Your task to perform on an android device: open app "Facebook" (install if not already installed) and go to login screen Image 0: 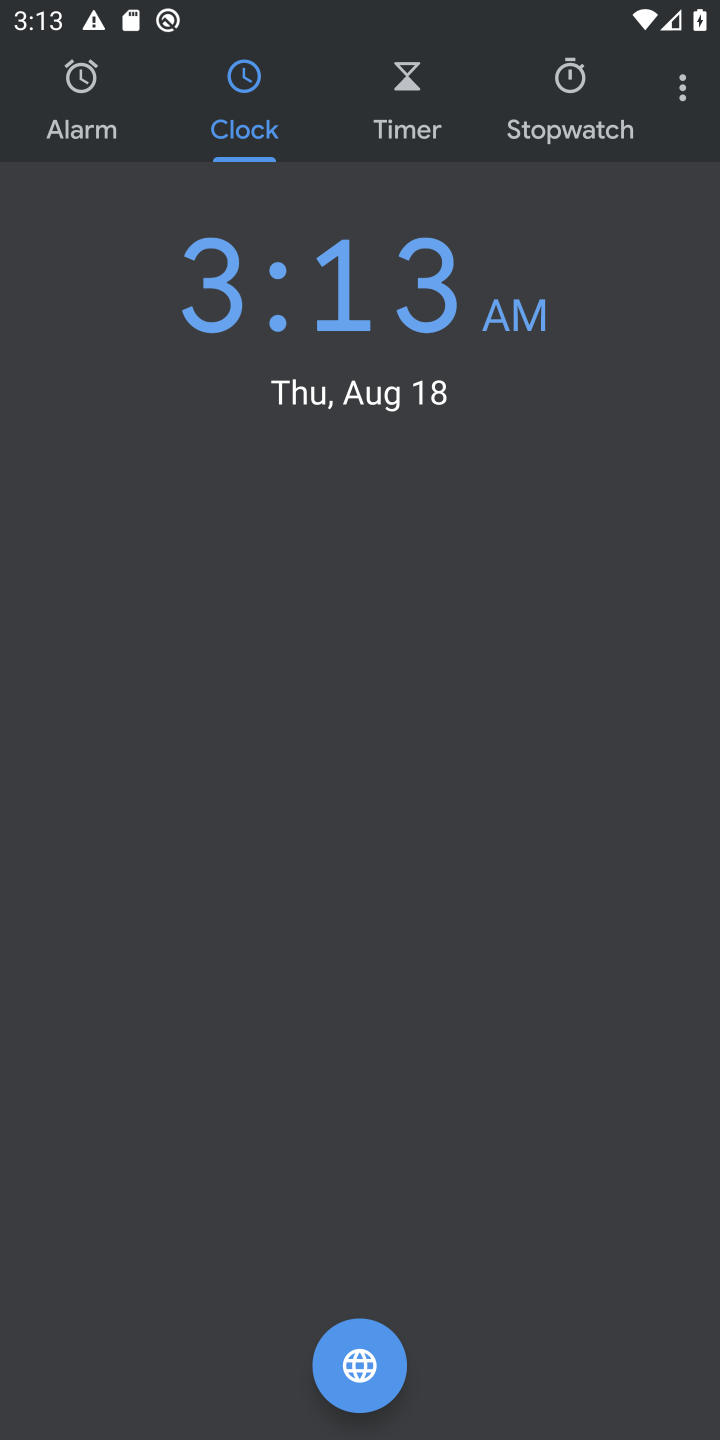
Step 0: press home button
Your task to perform on an android device: open app "Facebook" (install if not already installed) and go to login screen Image 1: 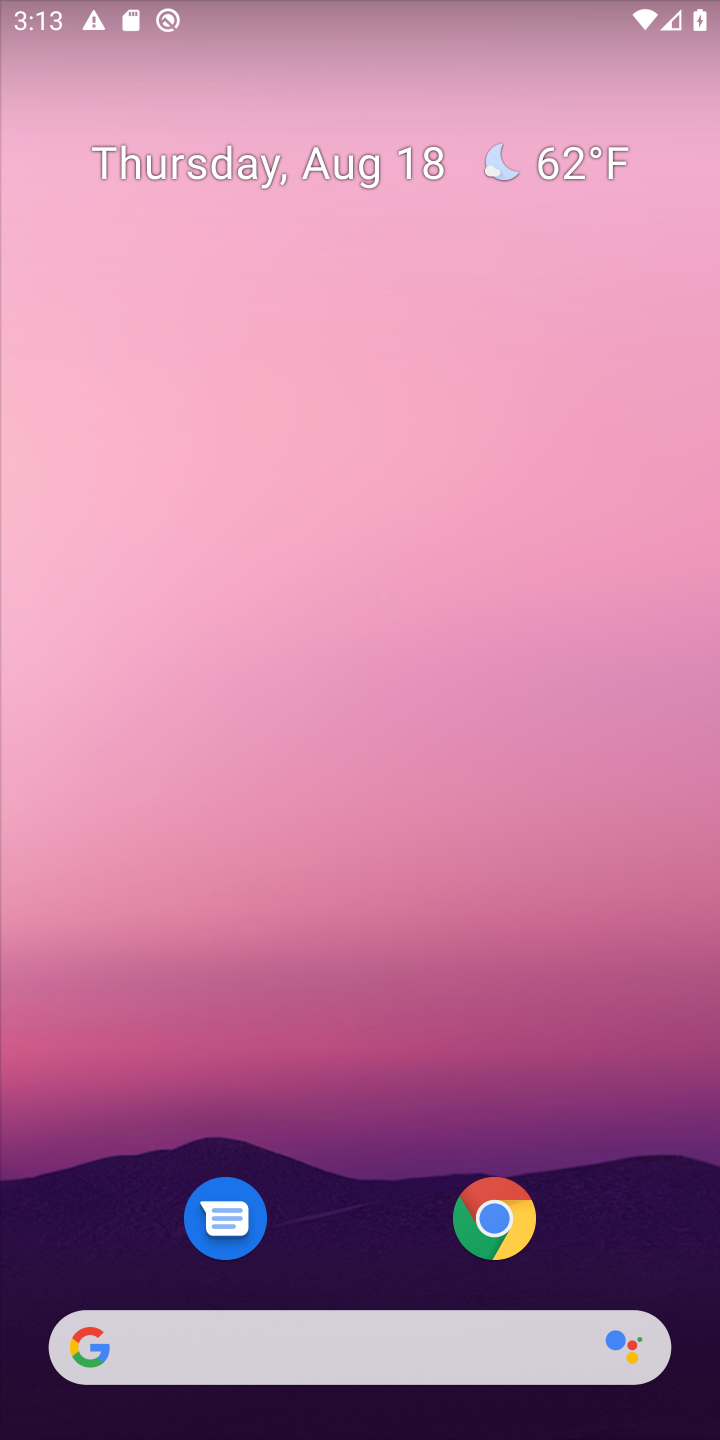
Step 1: drag from (410, 1125) to (476, 445)
Your task to perform on an android device: open app "Facebook" (install if not already installed) and go to login screen Image 2: 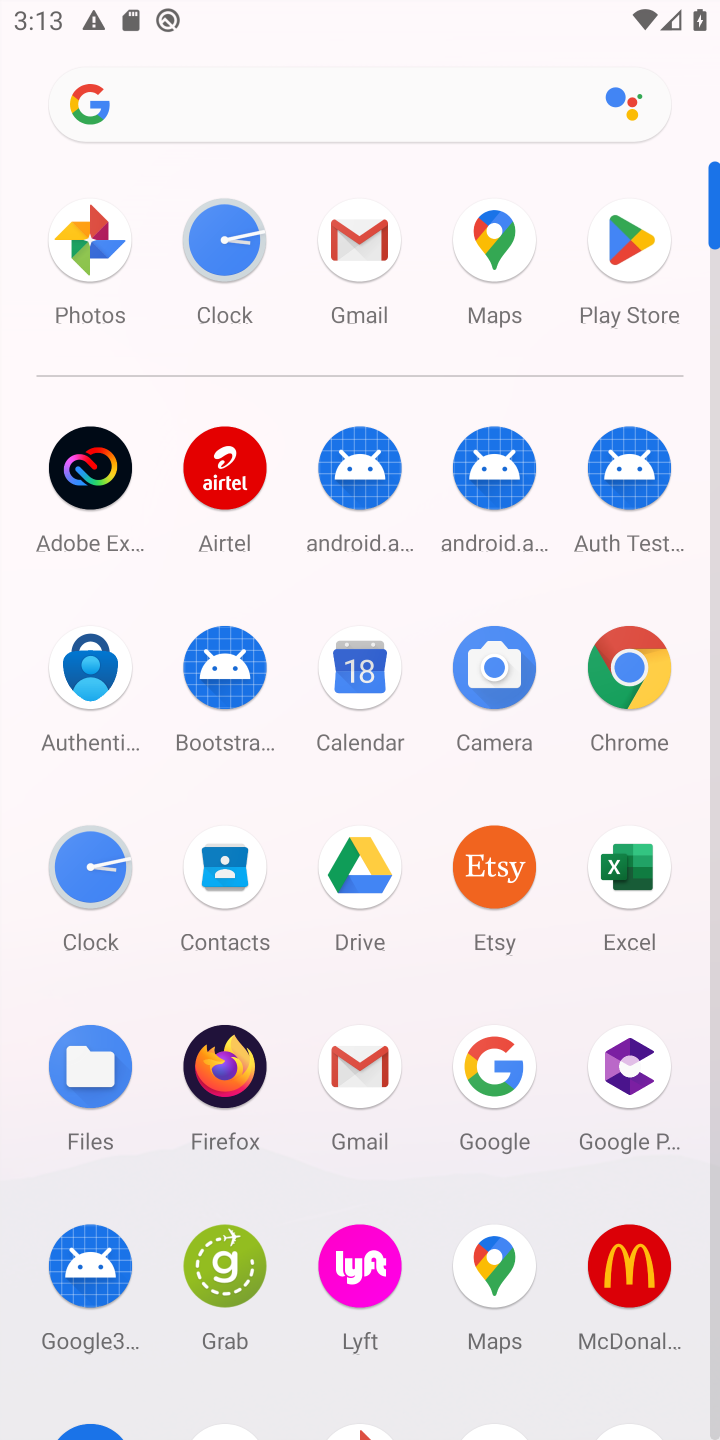
Step 2: drag from (309, 986) to (410, 390)
Your task to perform on an android device: open app "Facebook" (install if not already installed) and go to login screen Image 3: 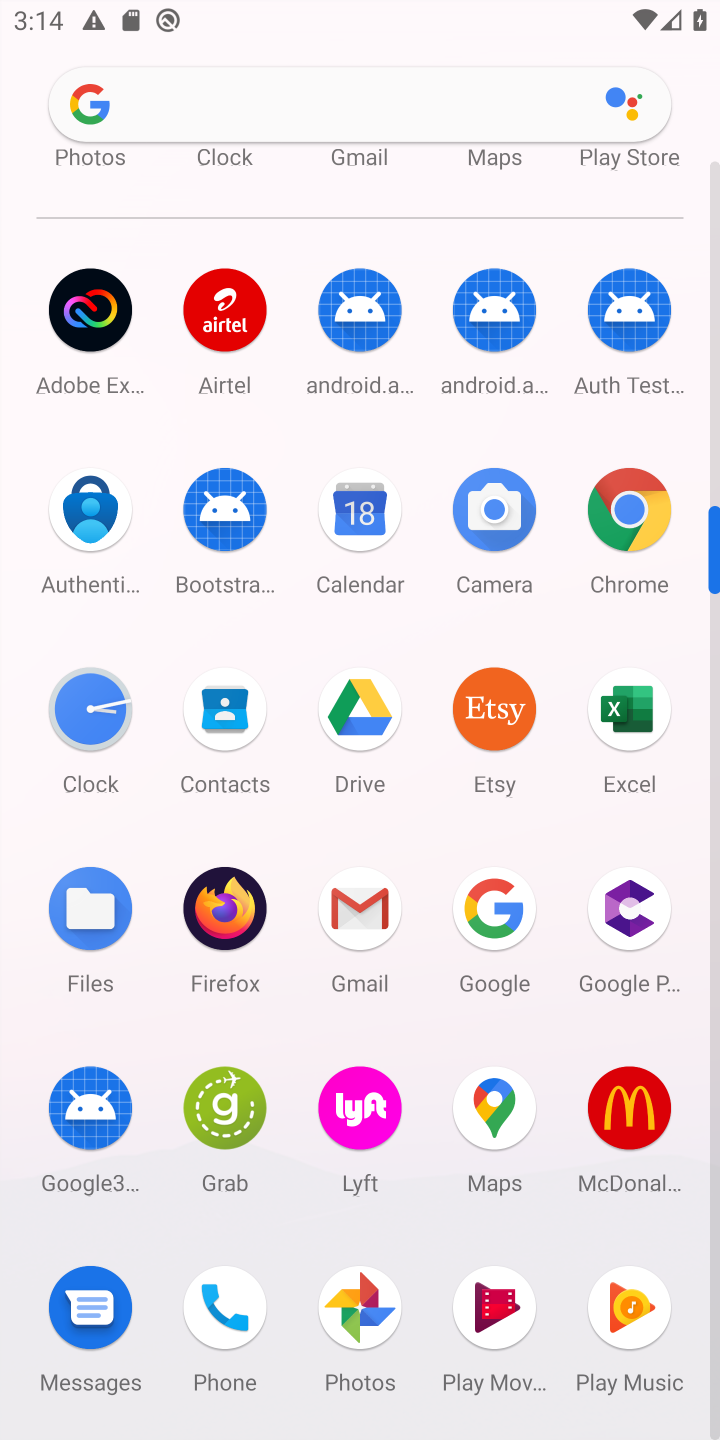
Step 3: drag from (308, 985) to (385, 366)
Your task to perform on an android device: open app "Facebook" (install if not already installed) and go to login screen Image 4: 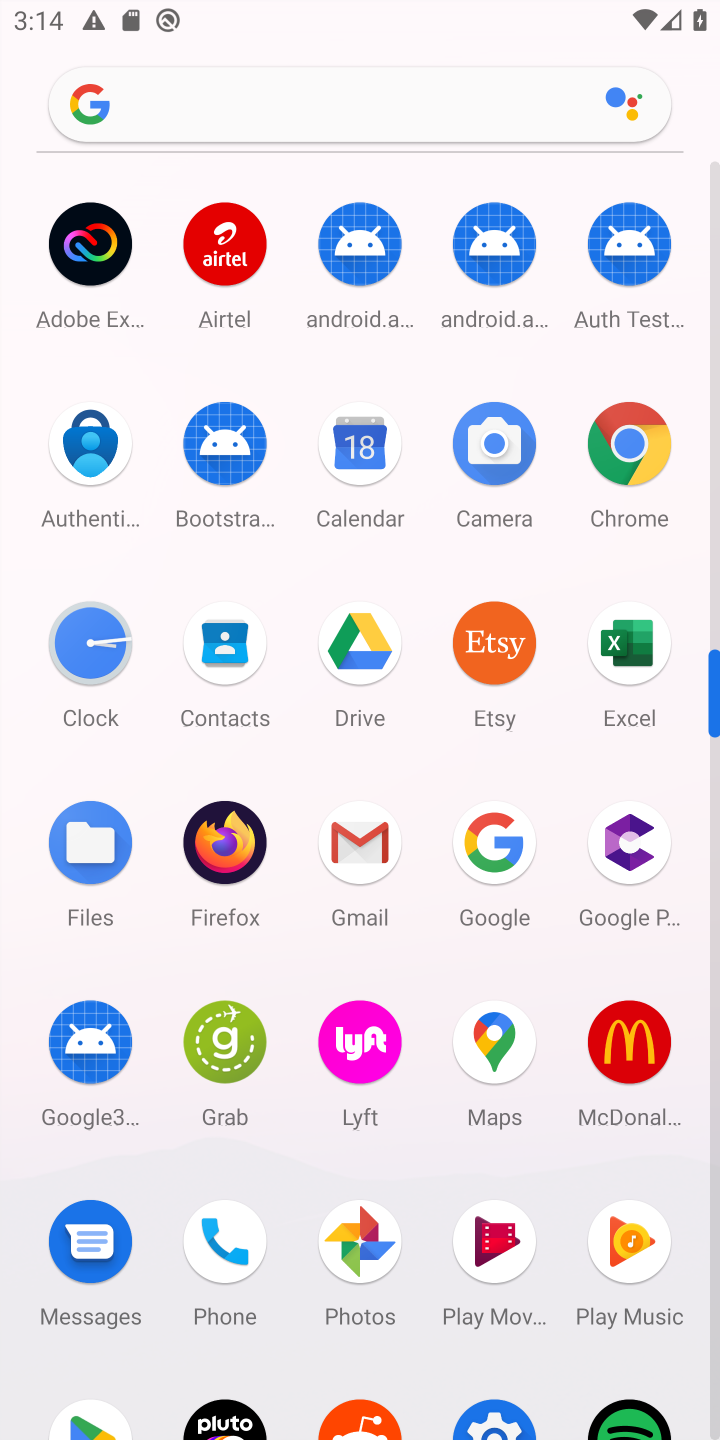
Step 4: drag from (308, 1119) to (306, 460)
Your task to perform on an android device: open app "Facebook" (install if not already installed) and go to login screen Image 5: 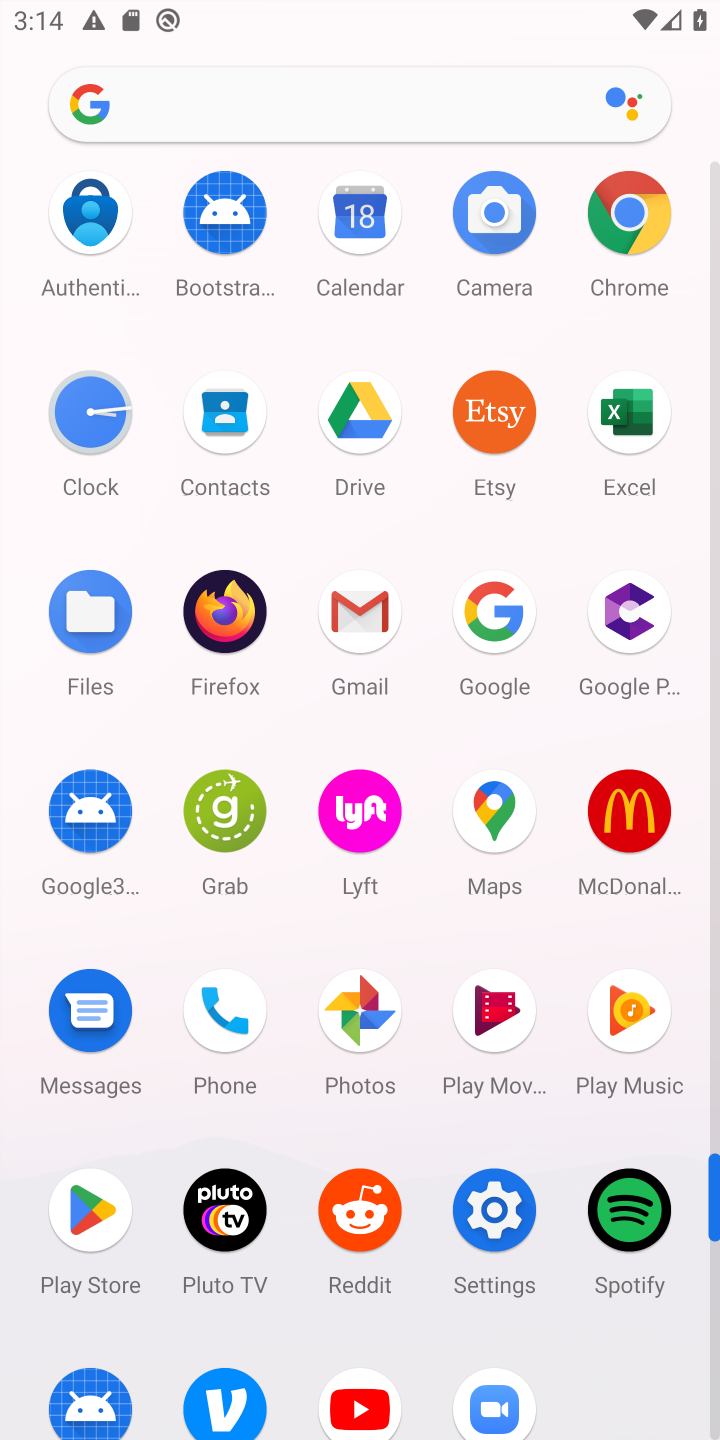
Step 5: drag from (331, 1058) to (356, 422)
Your task to perform on an android device: open app "Facebook" (install if not already installed) and go to login screen Image 6: 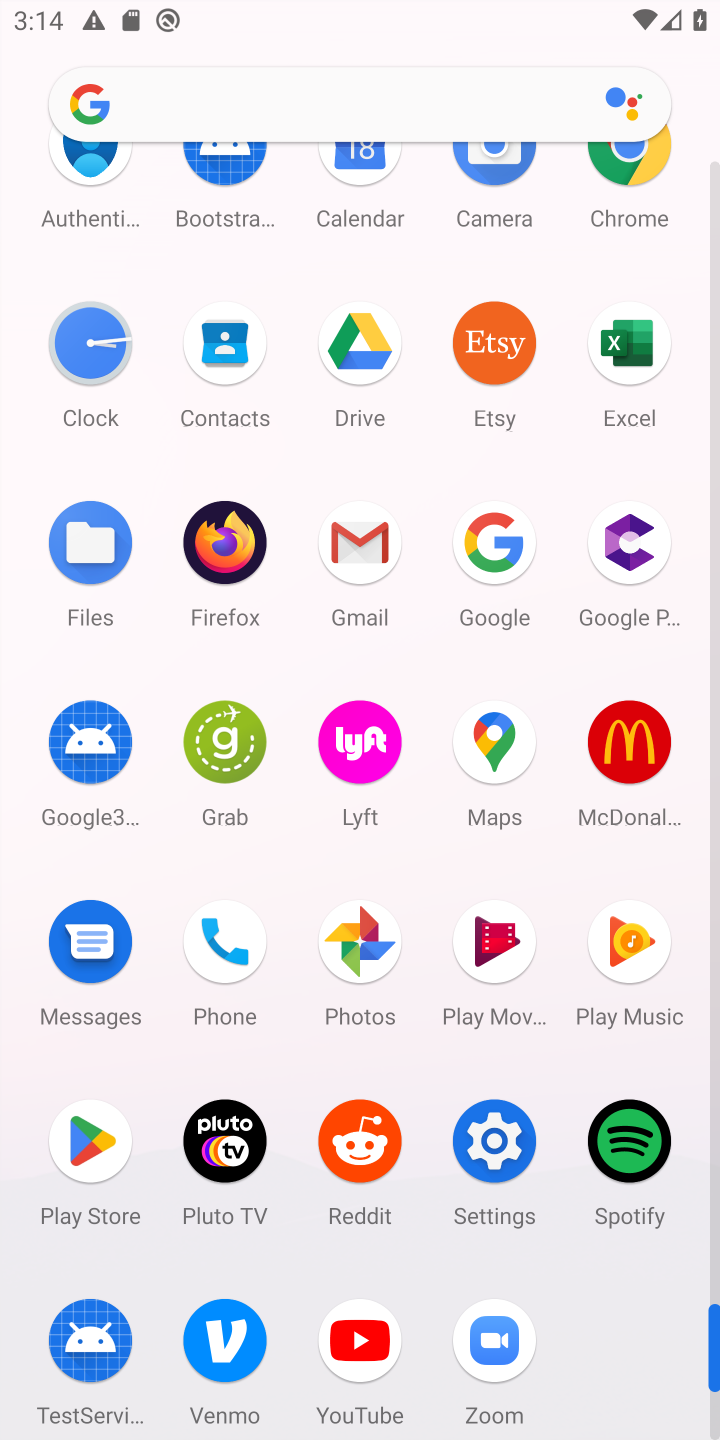
Step 6: click (117, 1157)
Your task to perform on an android device: open app "Facebook" (install if not already installed) and go to login screen Image 7: 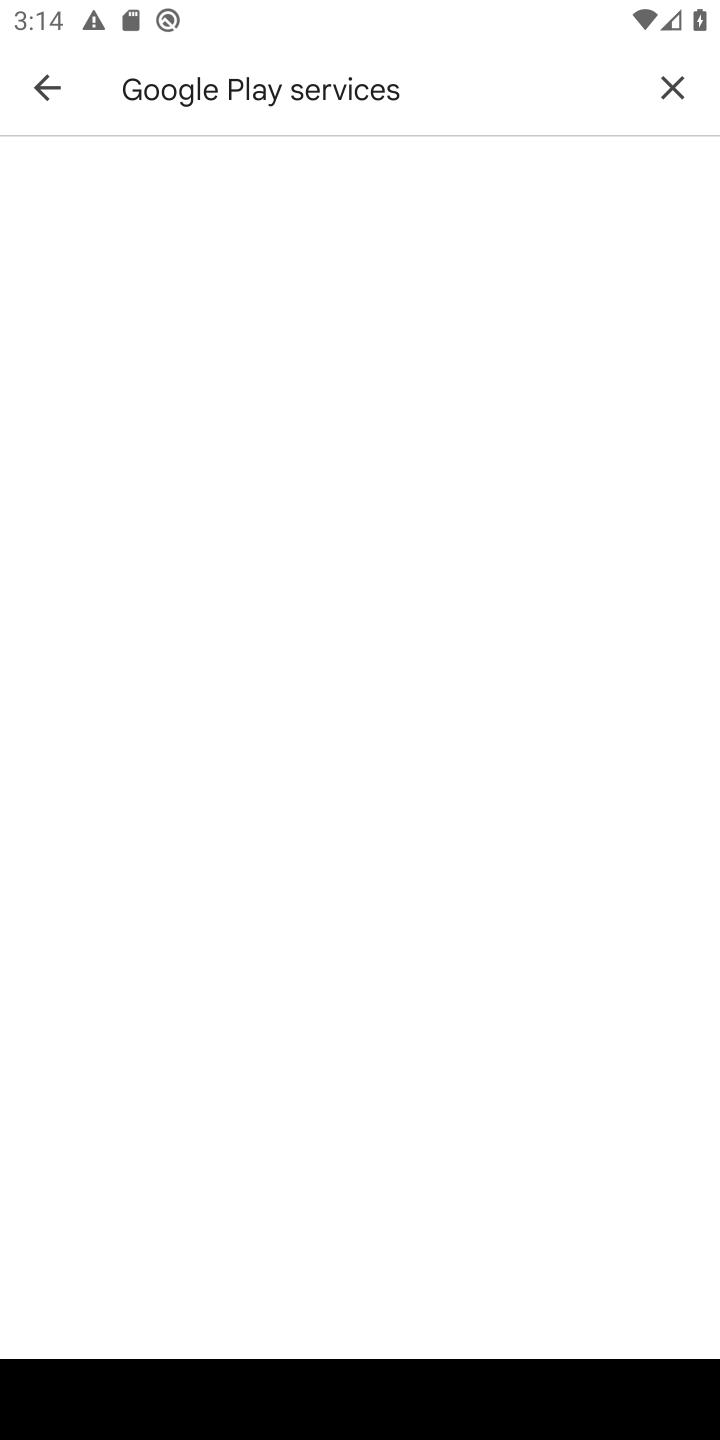
Step 7: click (661, 87)
Your task to perform on an android device: open app "Facebook" (install if not already installed) and go to login screen Image 8: 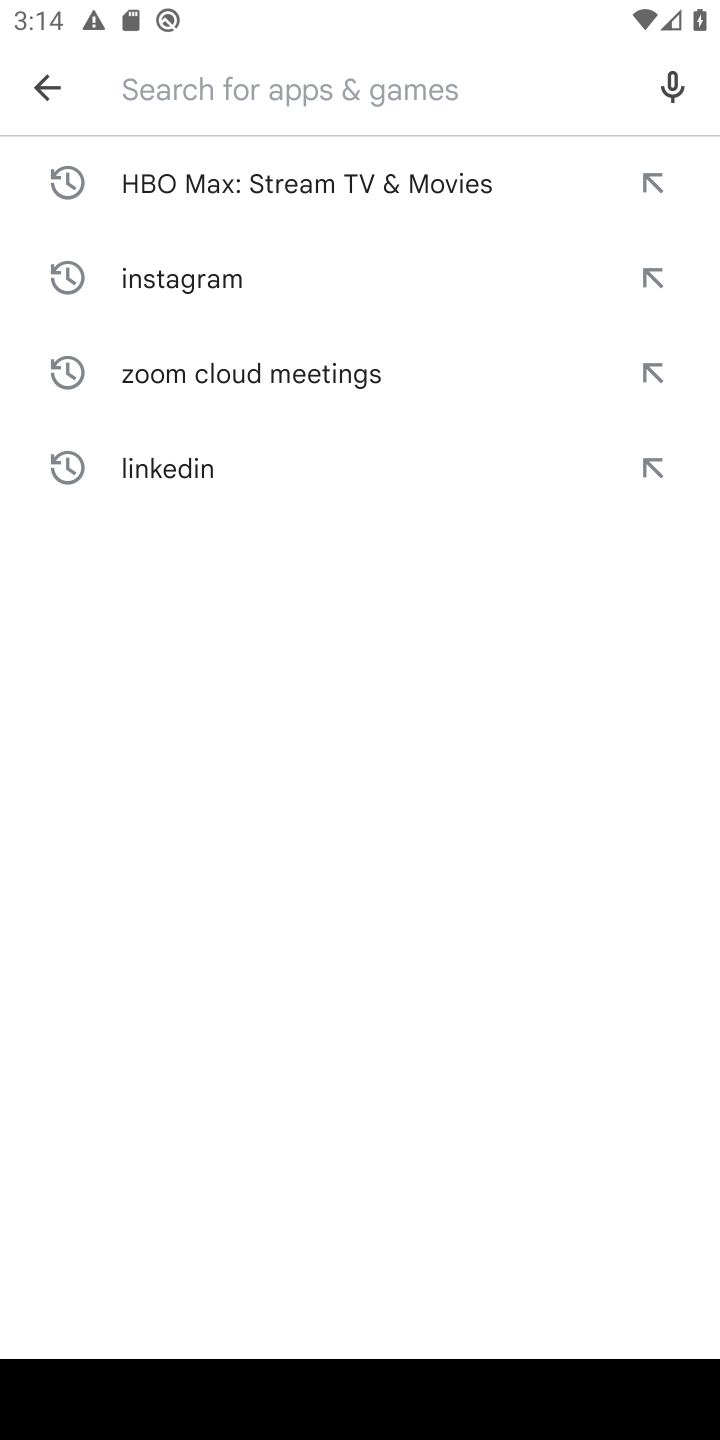
Step 8: type "Facebook"
Your task to perform on an android device: open app "Facebook" (install if not already installed) and go to login screen Image 9: 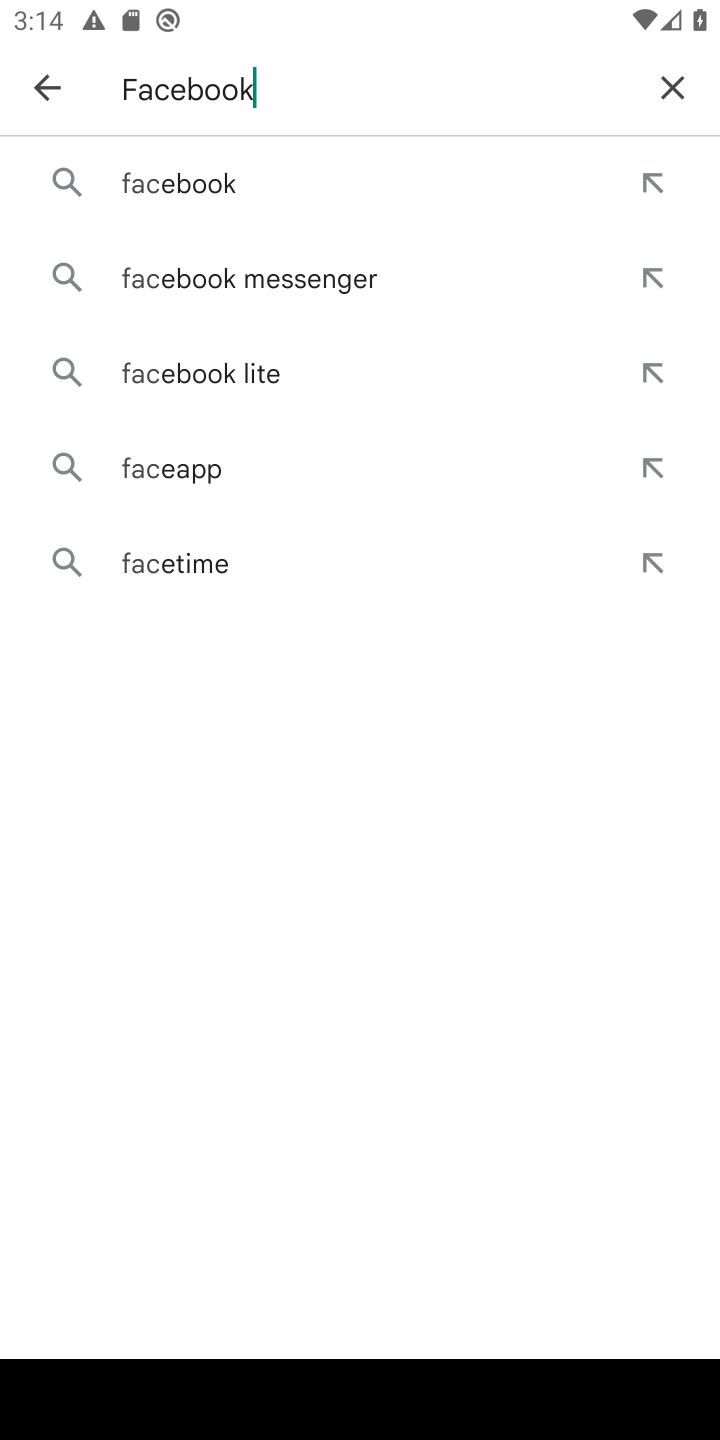
Step 9: type ""
Your task to perform on an android device: open app "Facebook" (install if not already installed) and go to login screen Image 10: 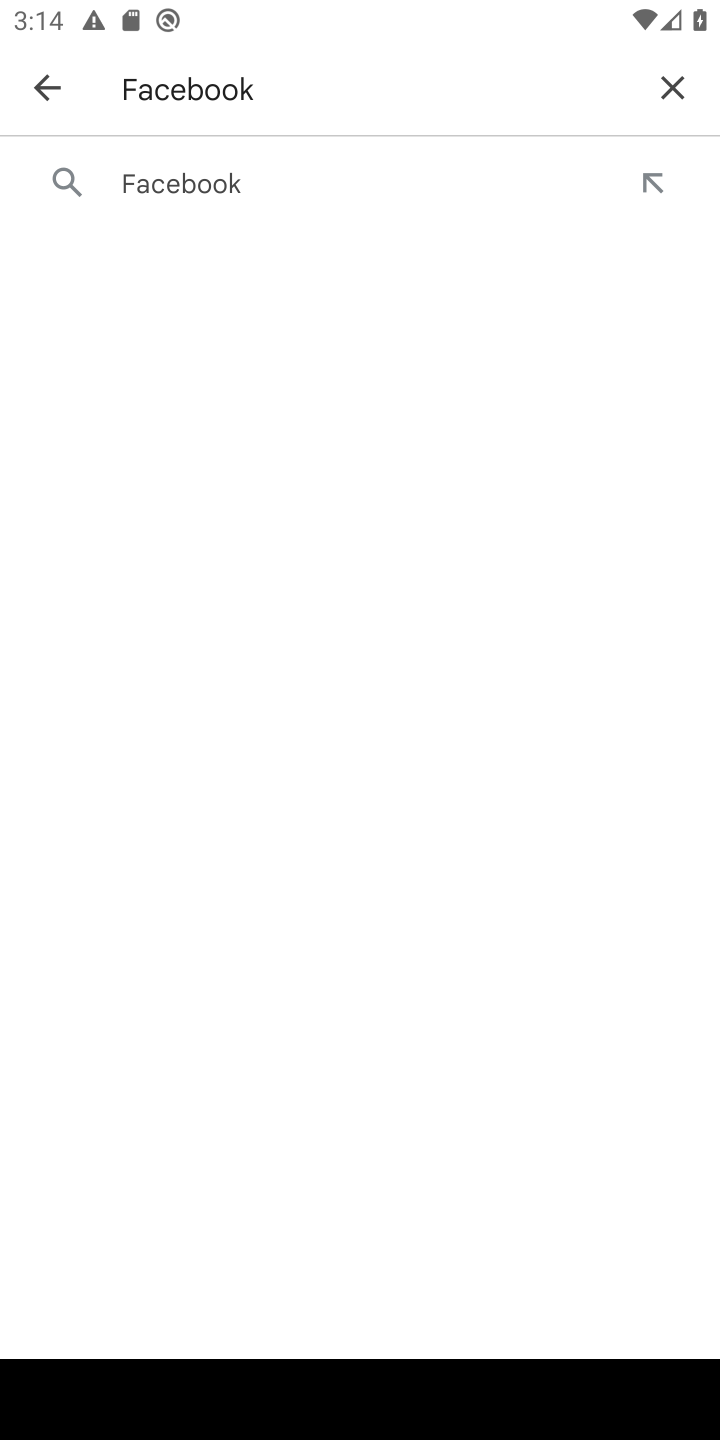
Step 10: click (152, 185)
Your task to perform on an android device: open app "Facebook" (install if not already installed) and go to login screen Image 11: 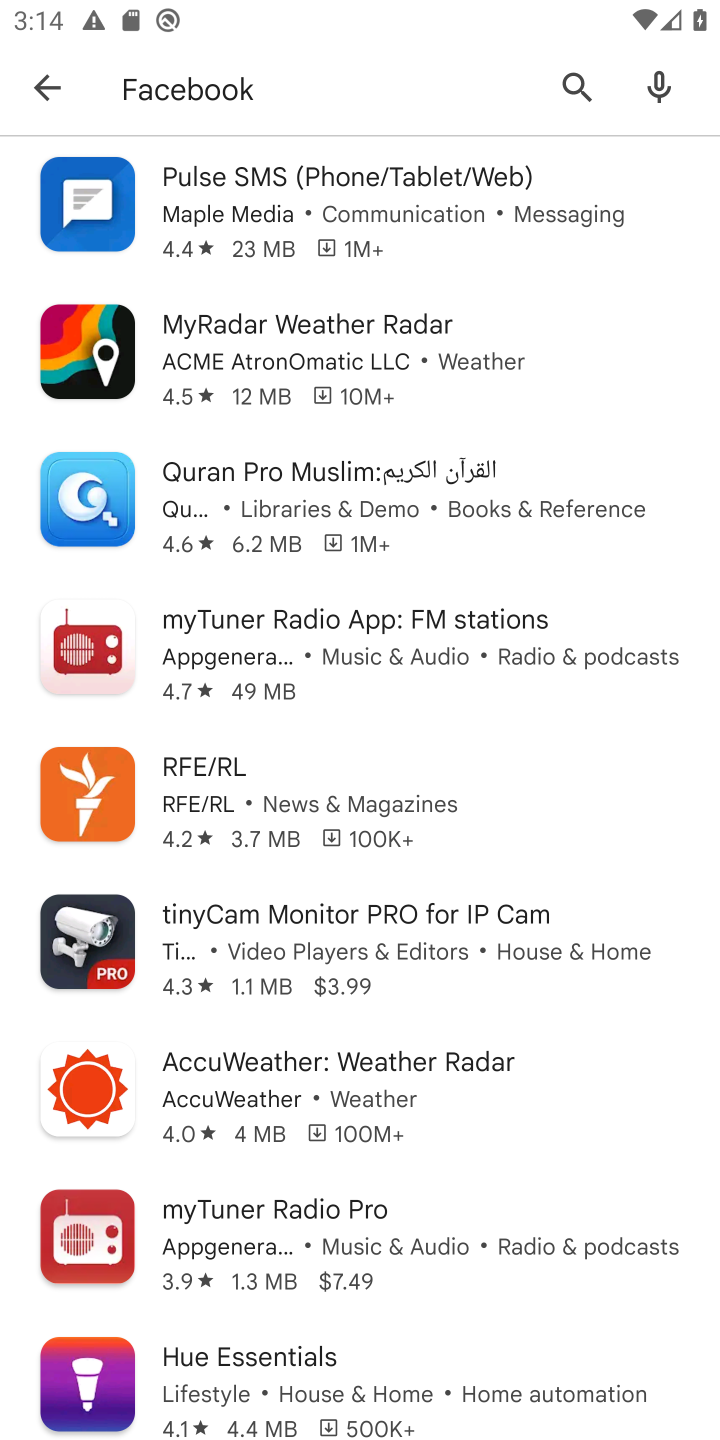
Step 11: task complete